Your task to perform on an android device: Go to Android settings Image 0: 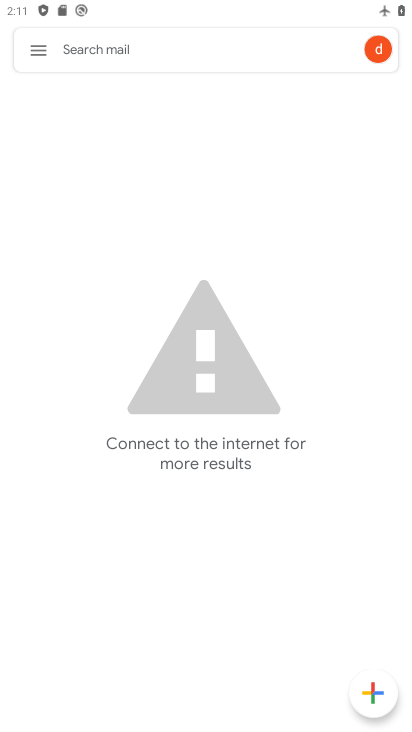
Step 0: press home button
Your task to perform on an android device: Go to Android settings Image 1: 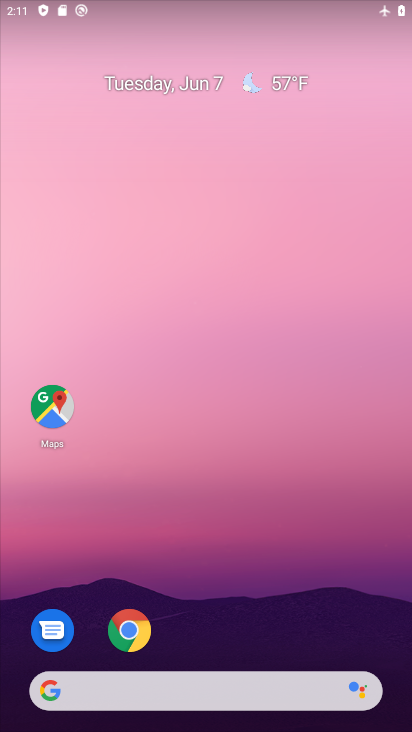
Step 1: drag from (400, 727) to (384, 49)
Your task to perform on an android device: Go to Android settings Image 2: 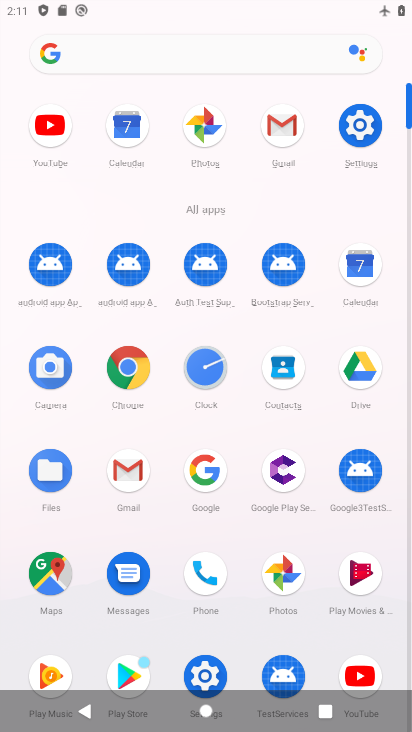
Step 2: click (360, 119)
Your task to perform on an android device: Go to Android settings Image 3: 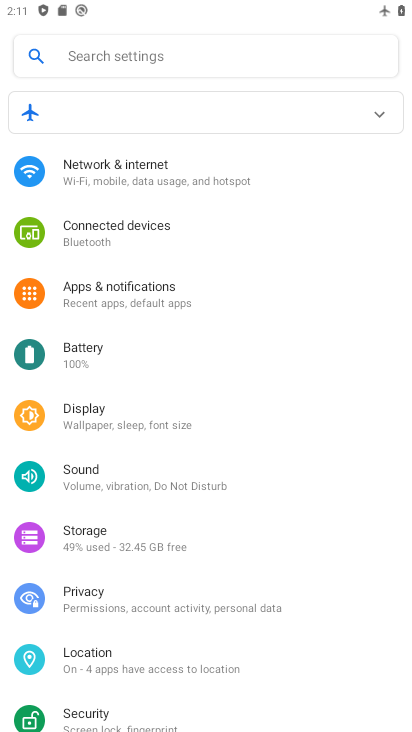
Step 3: task complete